Your task to perform on an android device: delete the emails in spam in the gmail app Image 0: 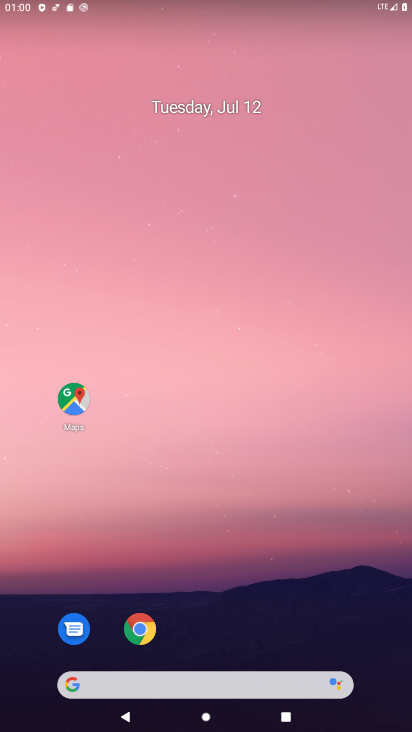
Step 0: drag from (112, 505) to (256, 131)
Your task to perform on an android device: delete the emails in spam in the gmail app Image 1: 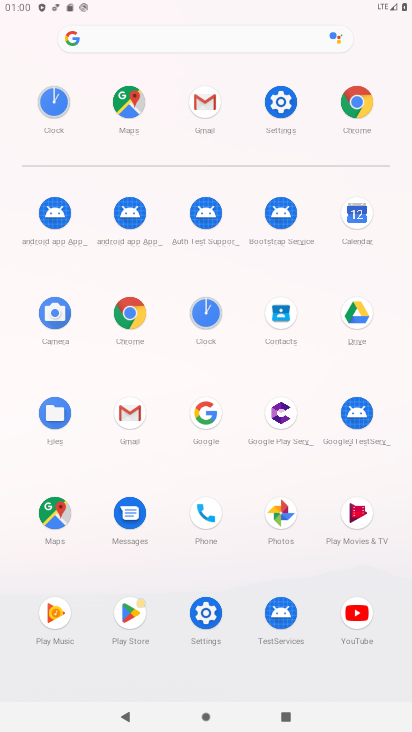
Step 1: click (141, 416)
Your task to perform on an android device: delete the emails in spam in the gmail app Image 2: 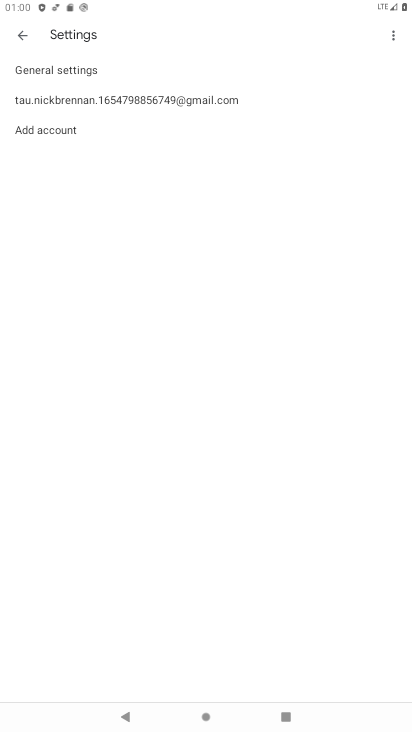
Step 2: click (26, 22)
Your task to perform on an android device: delete the emails in spam in the gmail app Image 3: 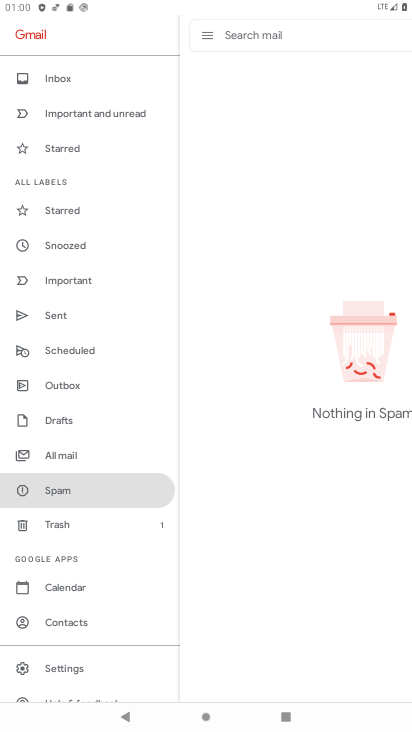
Step 3: click (102, 484)
Your task to perform on an android device: delete the emails in spam in the gmail app Image 4: 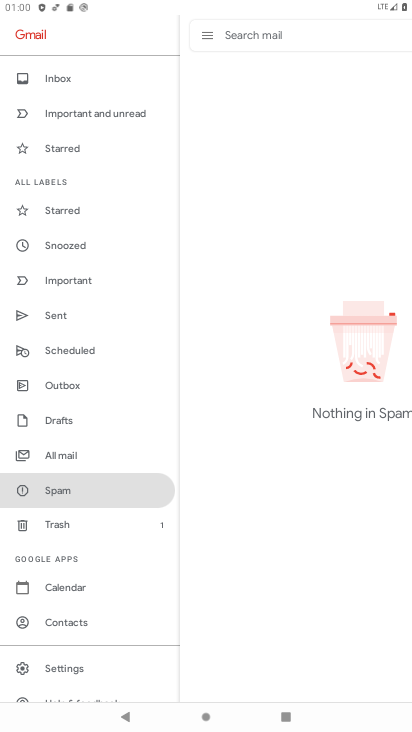
Step 4: click (102, 486)
Your task to perform on an android device: delete the emails in spam in the gmail app Image 5: 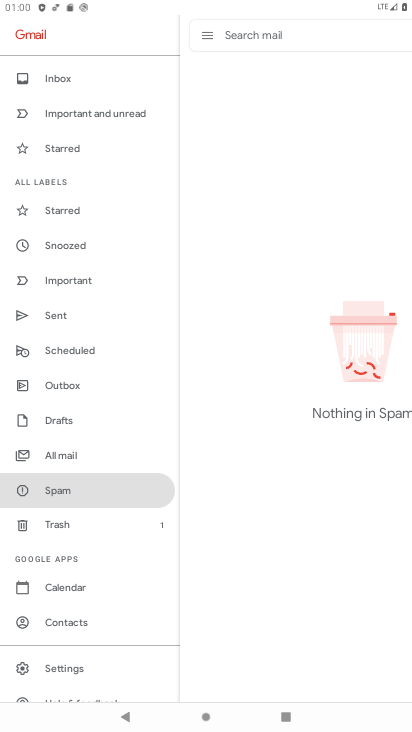
Step 5: task complete